Your task to perform on an android device: add a label to a message in the gmail app Image 0: 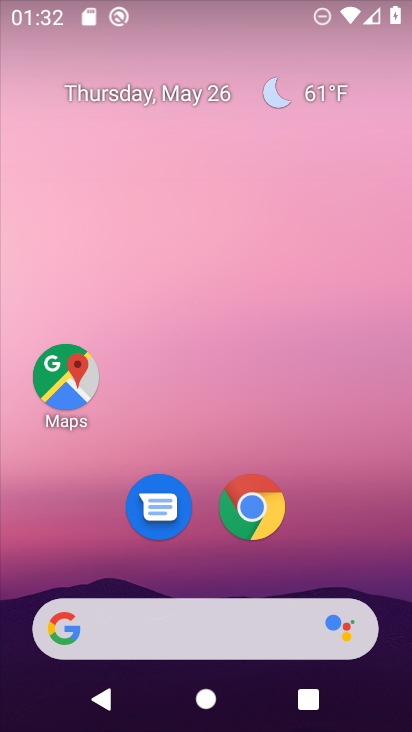
Step 0: drag from (361, 569) to (303, 74)
Your task to perform on an android device: add a label to a message in the gmail app Image 1: 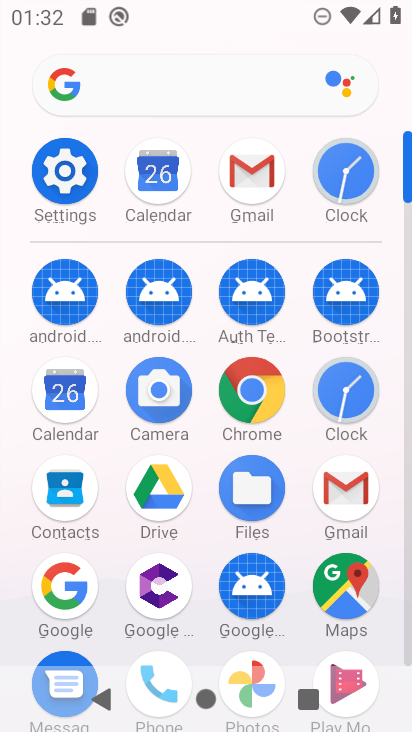
Step 1: click (250, 146)
Your task to perform on an android device: add a label to a message in the gmail app Image 2: 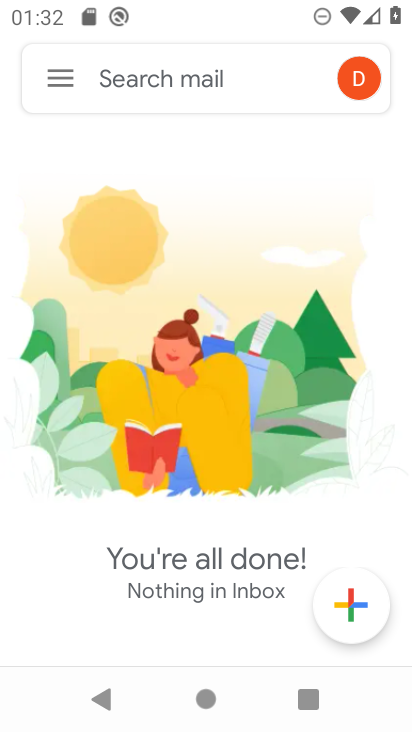
Step 2: click (63, 65)
Your task to perform on an android device: add a label to a message in the gmail app Image 3: 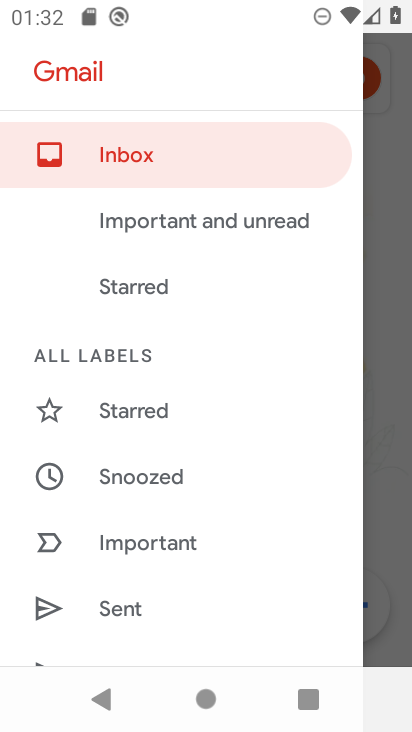
Step 3: drag from (147, 520) to (144, 220)
Your task to perform on an android device: add a label to a message in the gmail app Image 4: 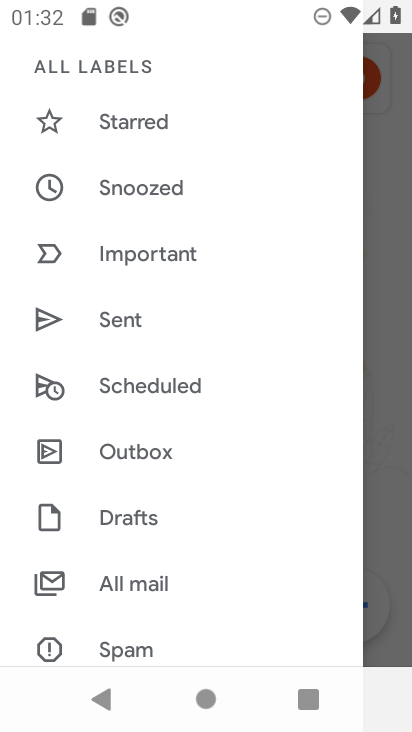
Step 4: click (152, 568)
Your task to perform on an android device: add a label to a message in the gmail app Image 5: 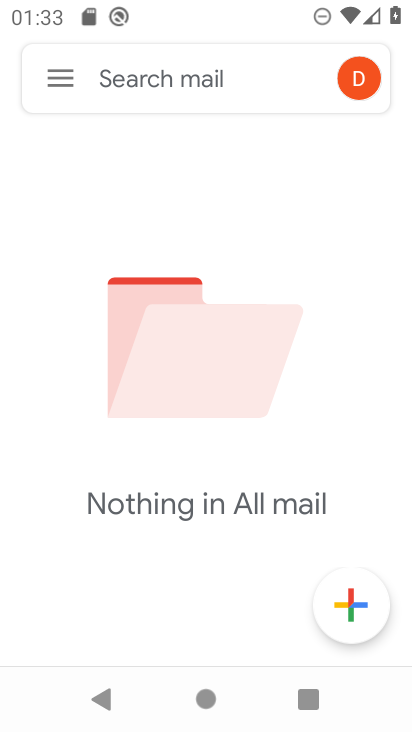
Step 5: task complete